Your task to perform on an android device: Open Yahoo.com Image 0: 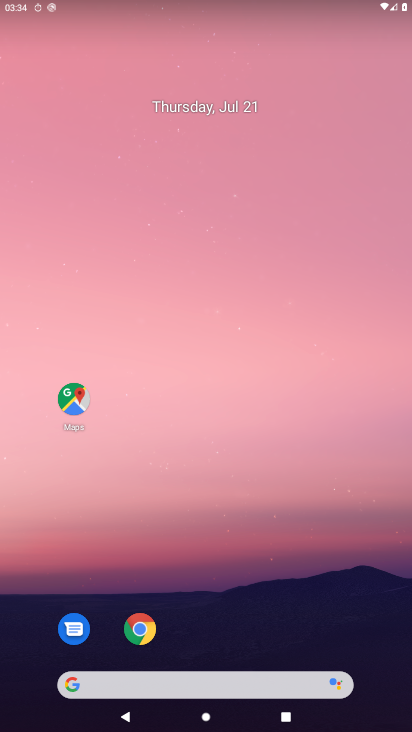
Step 0: click (100, 685)
Your task to perform on an android device: Open Yahoo.com Image 1: 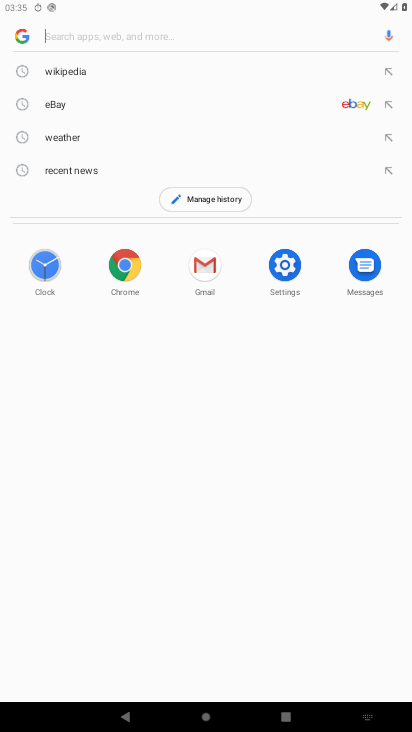
Step 1: type "Yahoo.com"
Your task to perform on an android device: Open Yahoo.com Image 2: 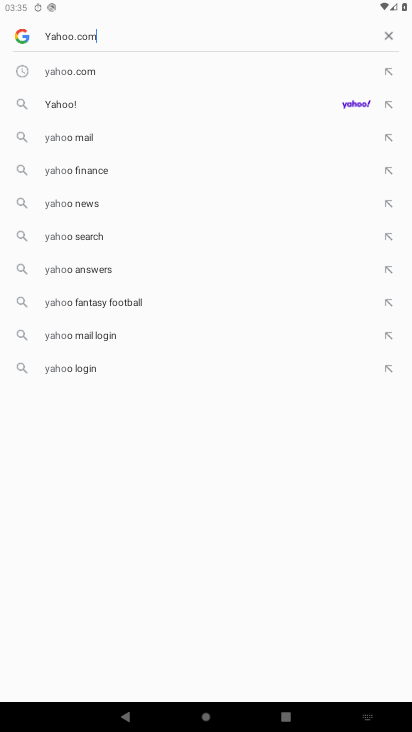
Step 2: type ""
Your task to perform on an android device: Open Yahoo.com Image 3: 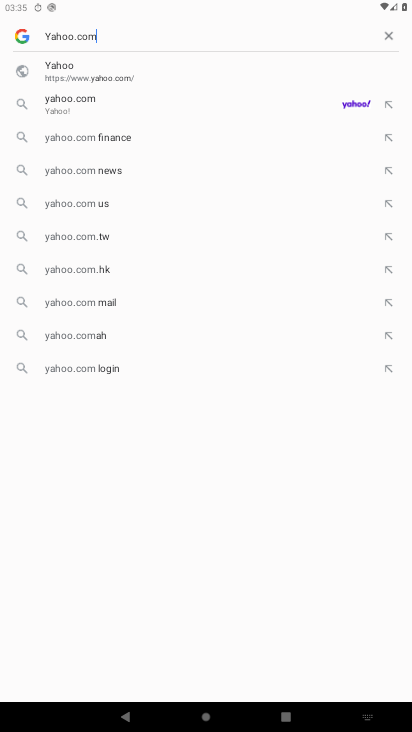
Step 3: click (90, 79)
Your task to perform on an android device: Open Yahoo.com Image 4: 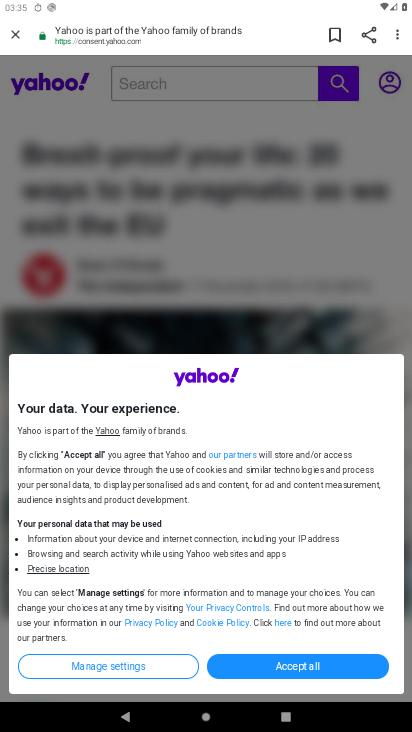
Step 4: task complete